Your task to perform on an android device: Go to settings Image 0: 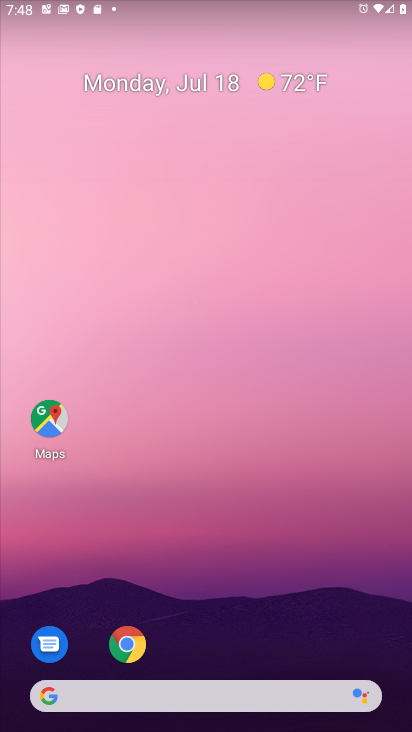
Step 0: drag from (394, 640) to (239, 2)
Your task to perform on an android device: Go to settings Image 1: 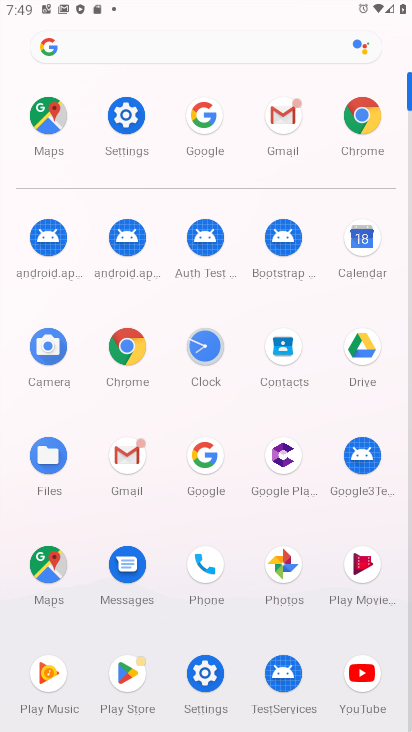
Step 1: click (204, 671)
Your task to perform on an android device: Go to settings Image 2: 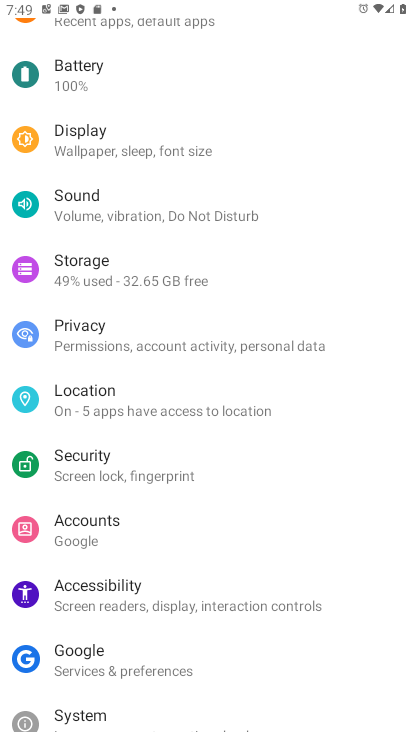
Step 2: task complete